Your task to perform on an android device: stop showing notifications on the lock screen Image 0: 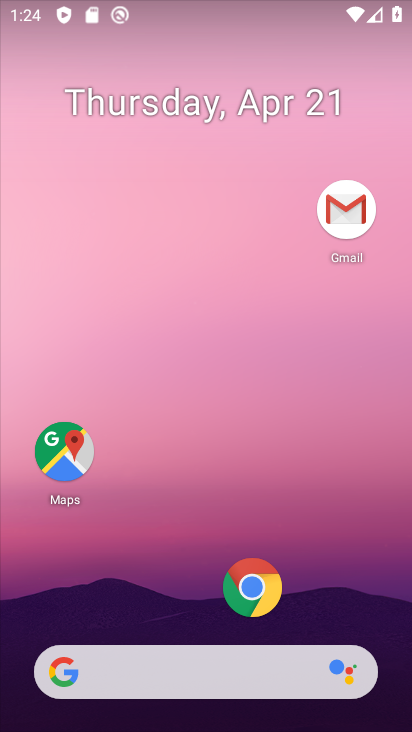
Step 0: drag from (232, 536) to (146, 62)
Your task to perform on an android device: stop showing notifications on the lock screen Image 1: 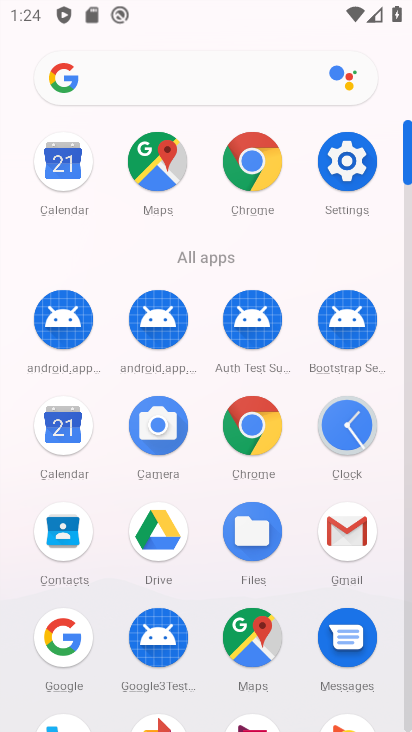
Step 1: click (351, 155)
Your task to perform on an android device: stop showing notifications on the lock screen Image 2: 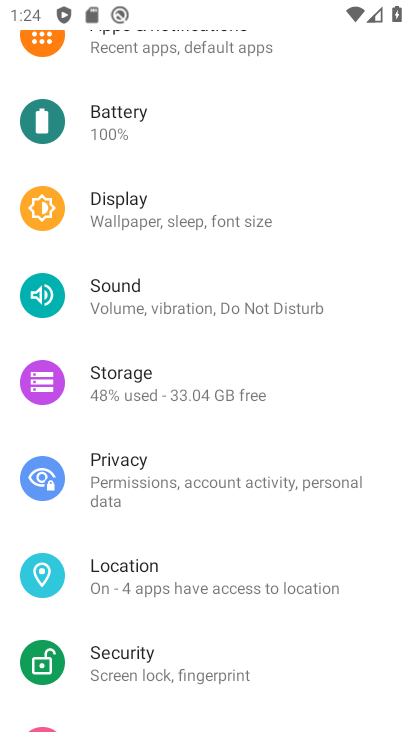
Step 2: click (277, 203)
Your task to perform on an android device: stop showing notifications on the lock screen Image 3: 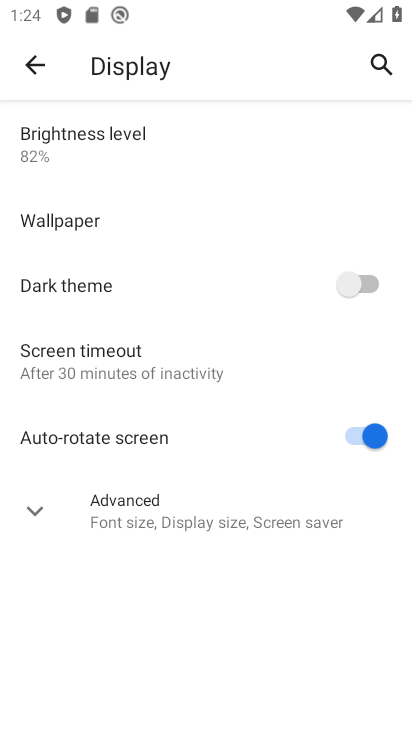
Step 3: press back button
Your task to perform on an android device: stop showing notifications on the lock screen Image 4: 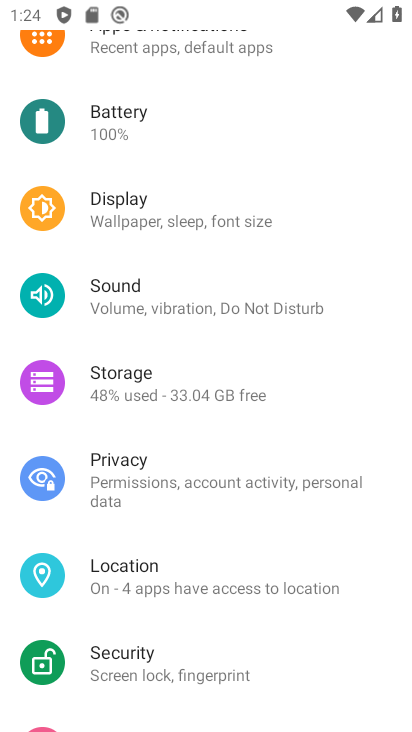
Step 4: drag from (290, 168) to (278, 576)
Your task to perform on an android device: stop showing notifications on the lock screen Image 5: 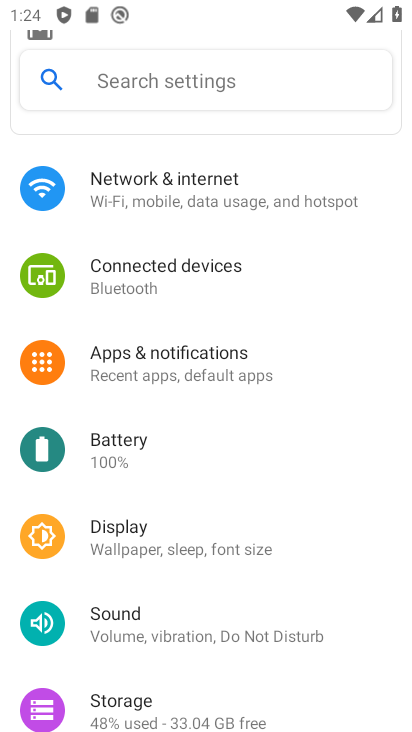
Step 5: click (213, 376)
Your task to perform on an android device: stop showing notifications on the lock screen Image 6: 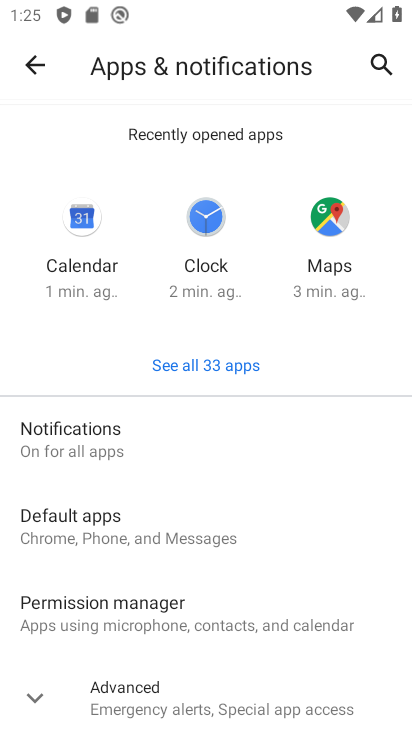
Step 6: click (133, 439)
Your task to perform on an android device: stop showing notifications on the lock screen Image 7: 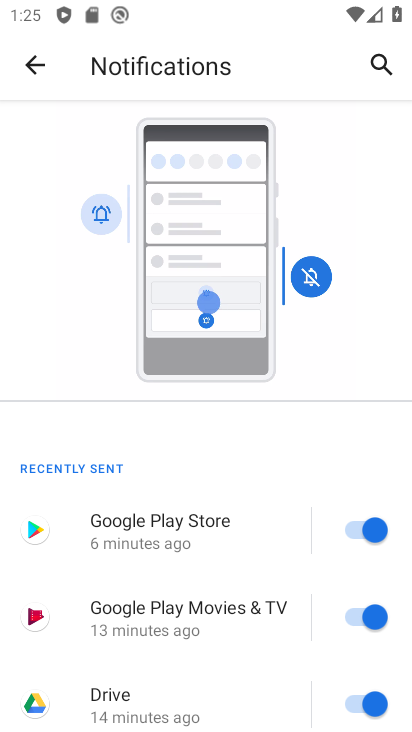
Step 7: drag from (264, 697) to (279, 198)
Your task to perform on an android device: stop showing notifications on the lock screen Image 8: 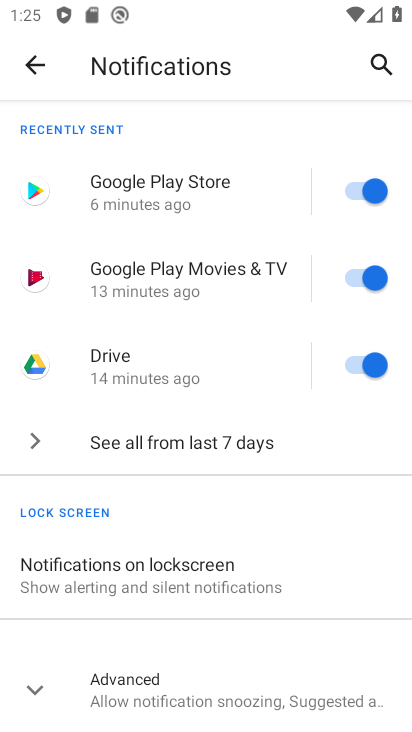
Step 8: click (181, 574)
Your task to perform on an android device: stop showing notifications on the lock screen Image 9: 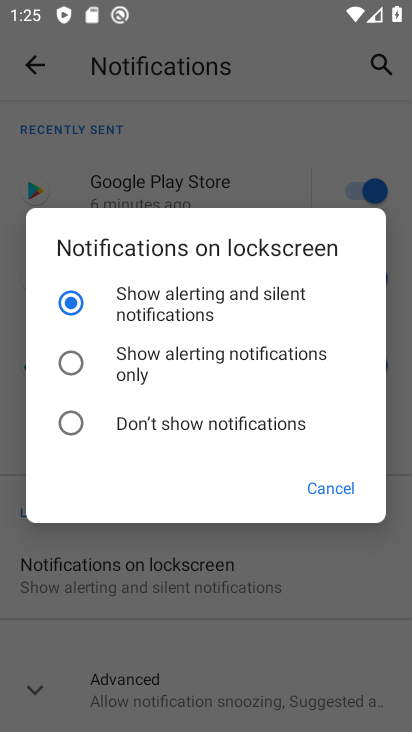
Step 9: click (126, 419)
Your task to perform on an android device: stop showing notifications on the lock screen Image 10: 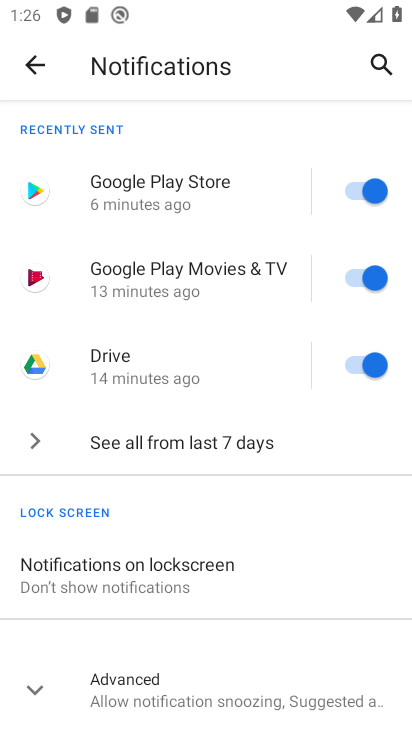
Step 10: task complete